Your task to perform on an android device: turn on sleep mode Image 0: 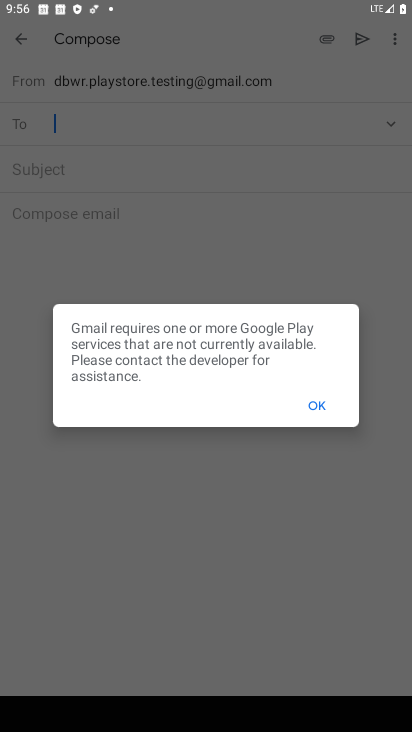
Step 0: drag from (236, 636) to (287, 208)
Your task to perform on an android device: turn on sleep mode Image 1: 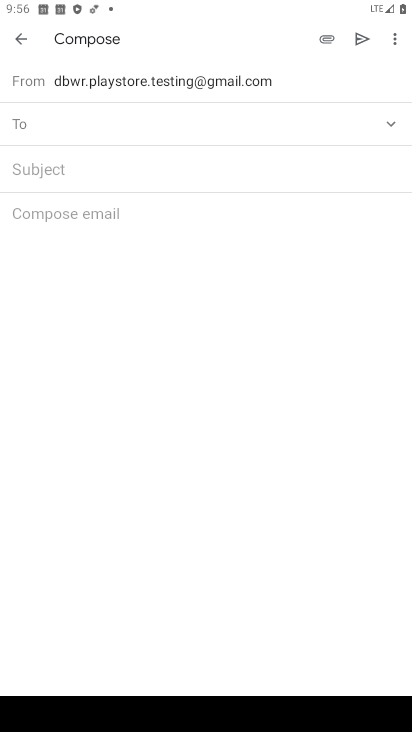
Step 1: press home button
Your task to perform on an android device: turn on sleep mode Image 2: 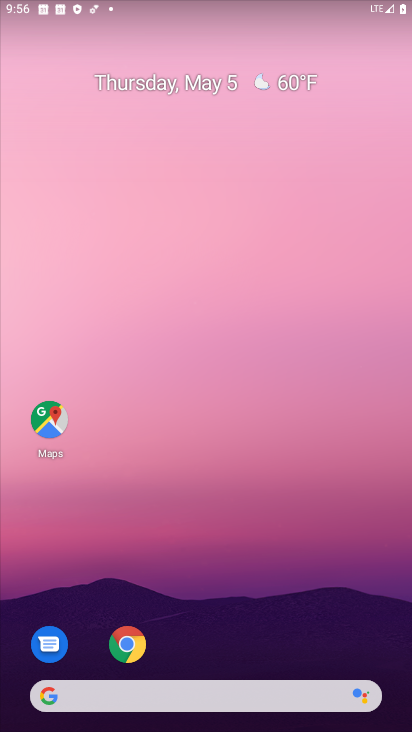
Step 2: drag from (218, 634) to (239, 228)
Your task to perform on an android device: turn on sleep mode Image 3: 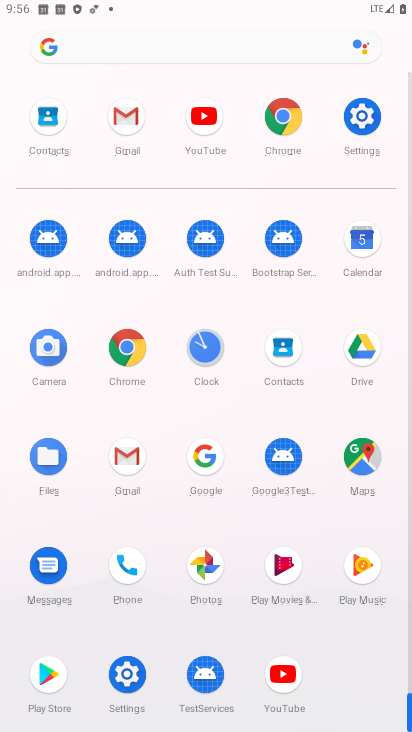
Step 3: click (372, 102)
Your task to perform on an android device: turn on sleep mode Image 4: 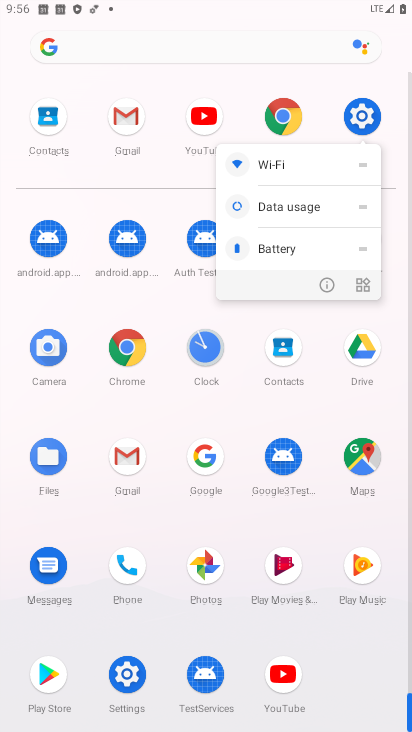
Step 4: click (321, 283)
Your task to perform on an android device: turn on sleep mode Image 5: 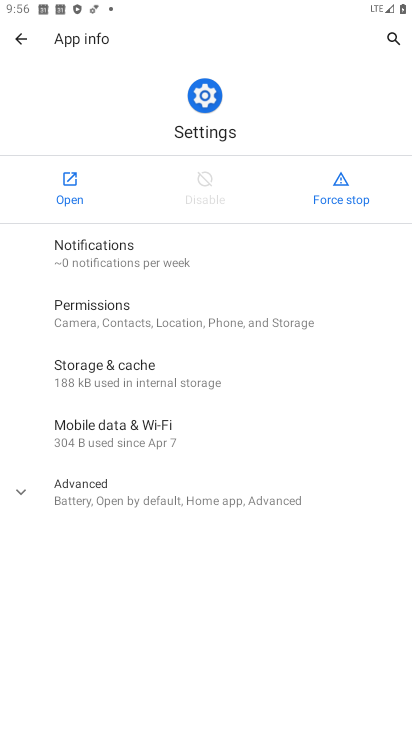
Step 5: click (63, 193)
Your task to perform on an android device: turn on sleep mode Image 6: 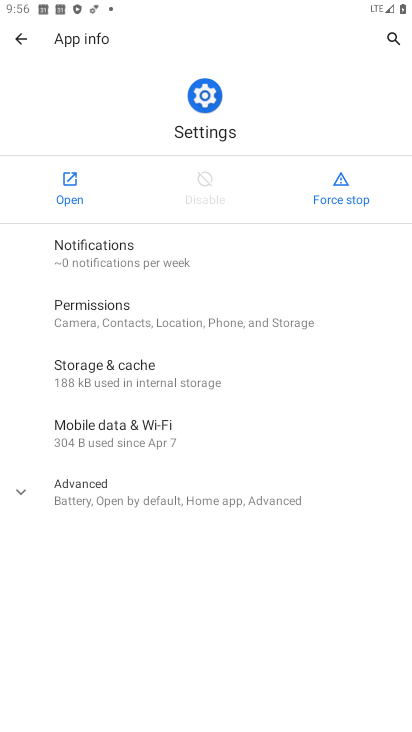
Step 6: click (62, 189)
Your task to perform on an android device: turn on sleep mode Image 7: 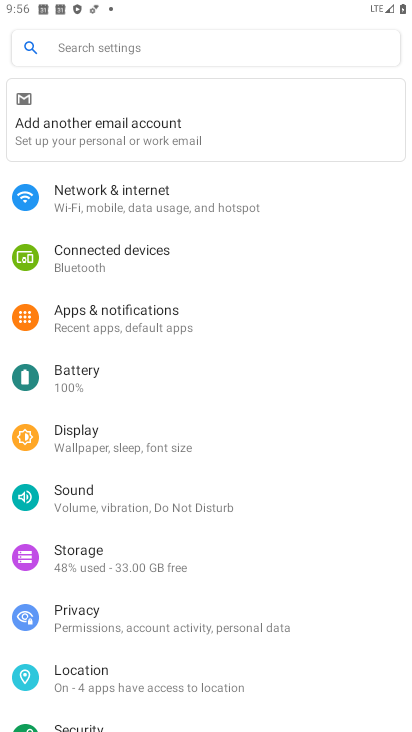
Step 7: click (177, 439)
Your task to perform on an android device: turn on sleep mode Image 8: 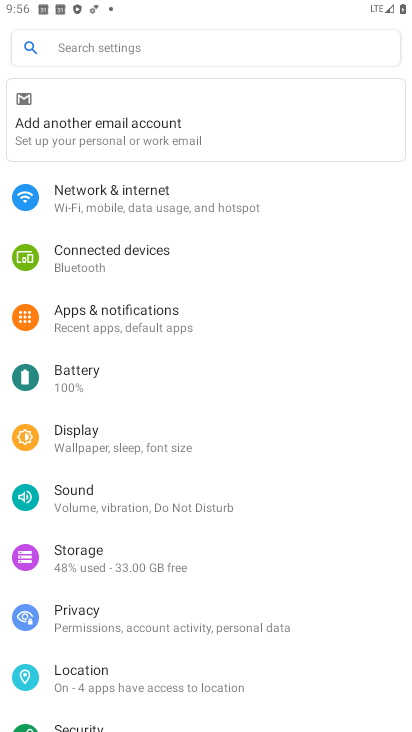
Step 8: click (177, 439)
Your task to perform on an android device: turn on sleep mode Image 9: 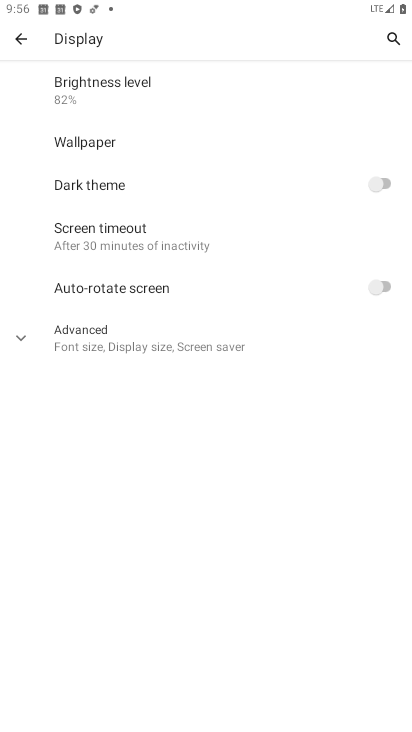
Step 9: click (199, 241)
Your task to perform on an android device: turn on sleep mode Image 10: 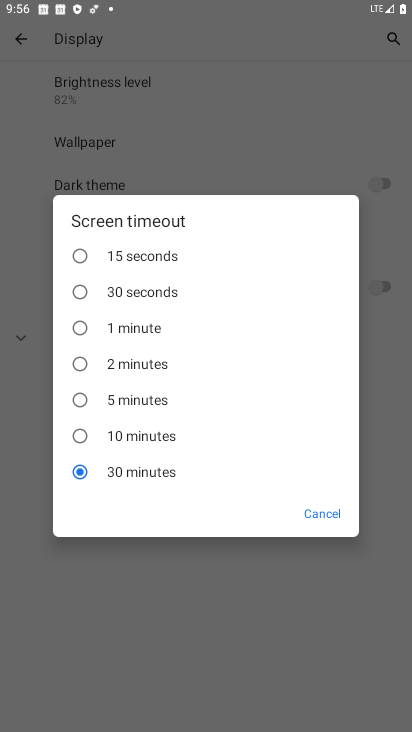
Step 10: task complete